Your task to perform on an android device: uninstall "Speedtest by Ookla" Image 0: 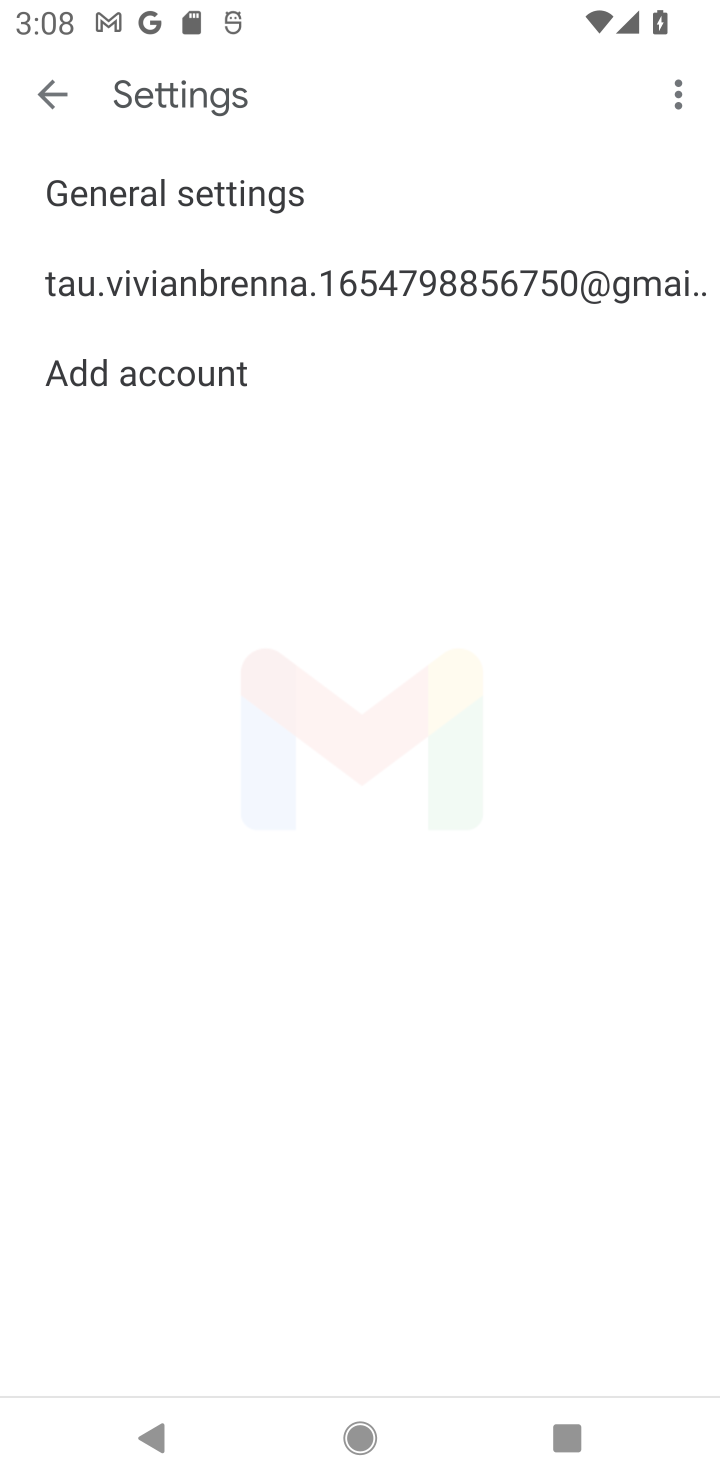
Step 0: press home button
Your task to perform on an android device: uninstall "Speedtest by Ookla" Image 1: 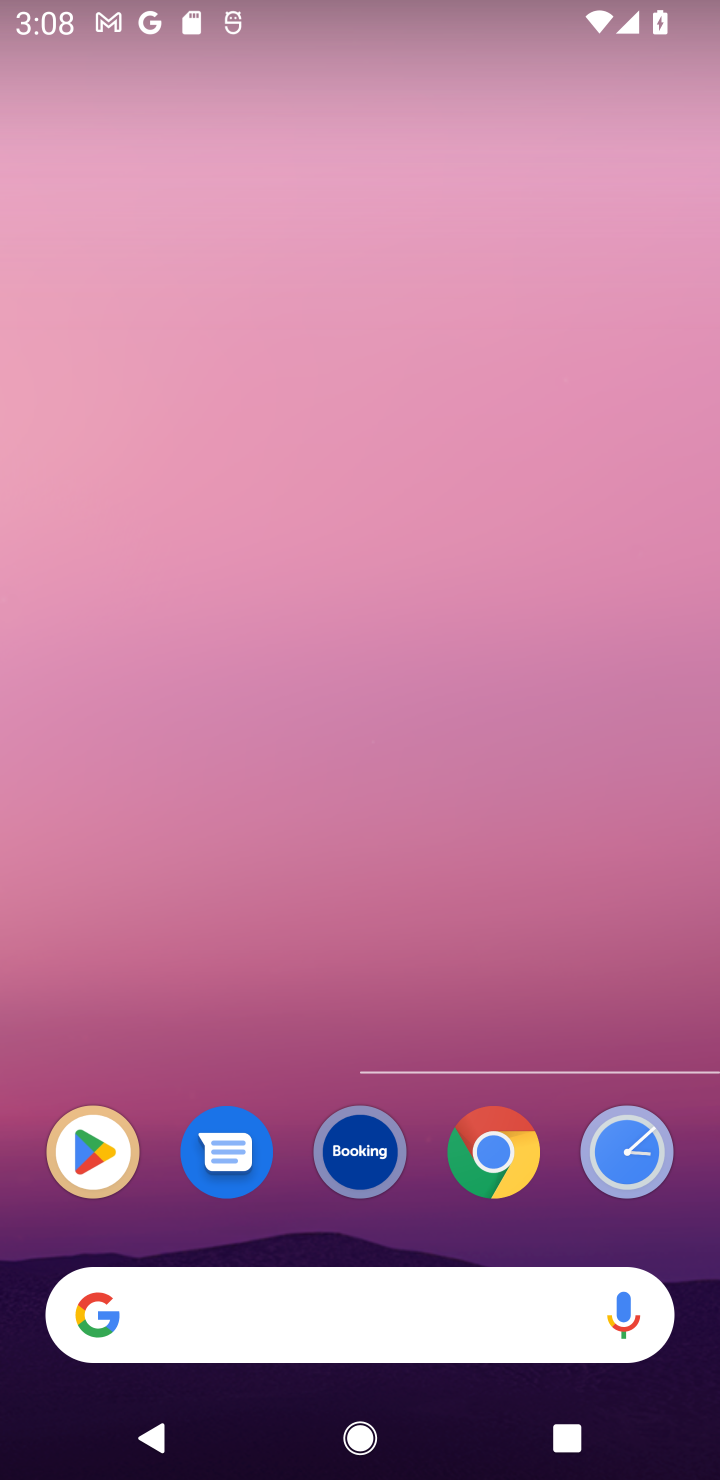
Step 1: click (141, 1127)
Your task to perform on an android device: uninstall "Speedtest by Ookla" Image 2: 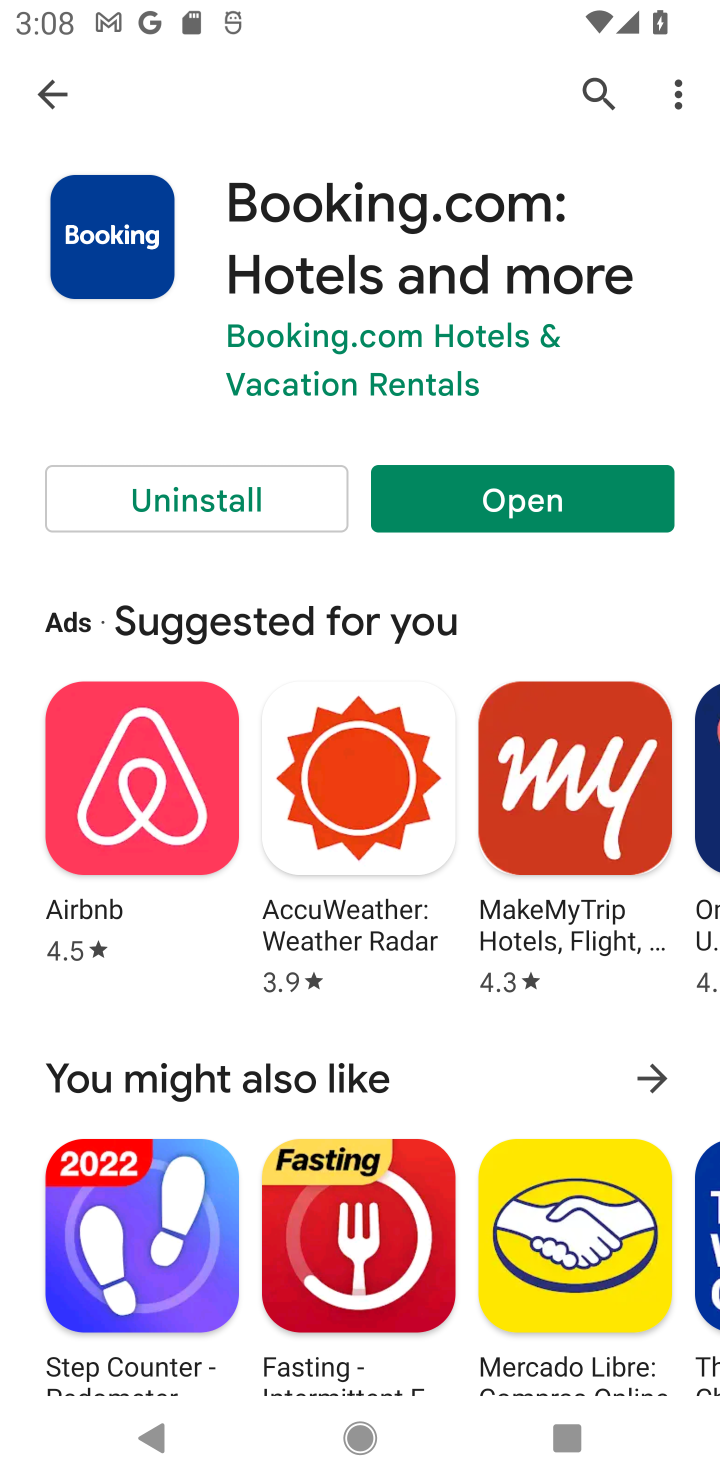
Step 2: click (64, 97)
Your task to perform on an android device: uninstall "Speedtest by Ookla" Image 3: 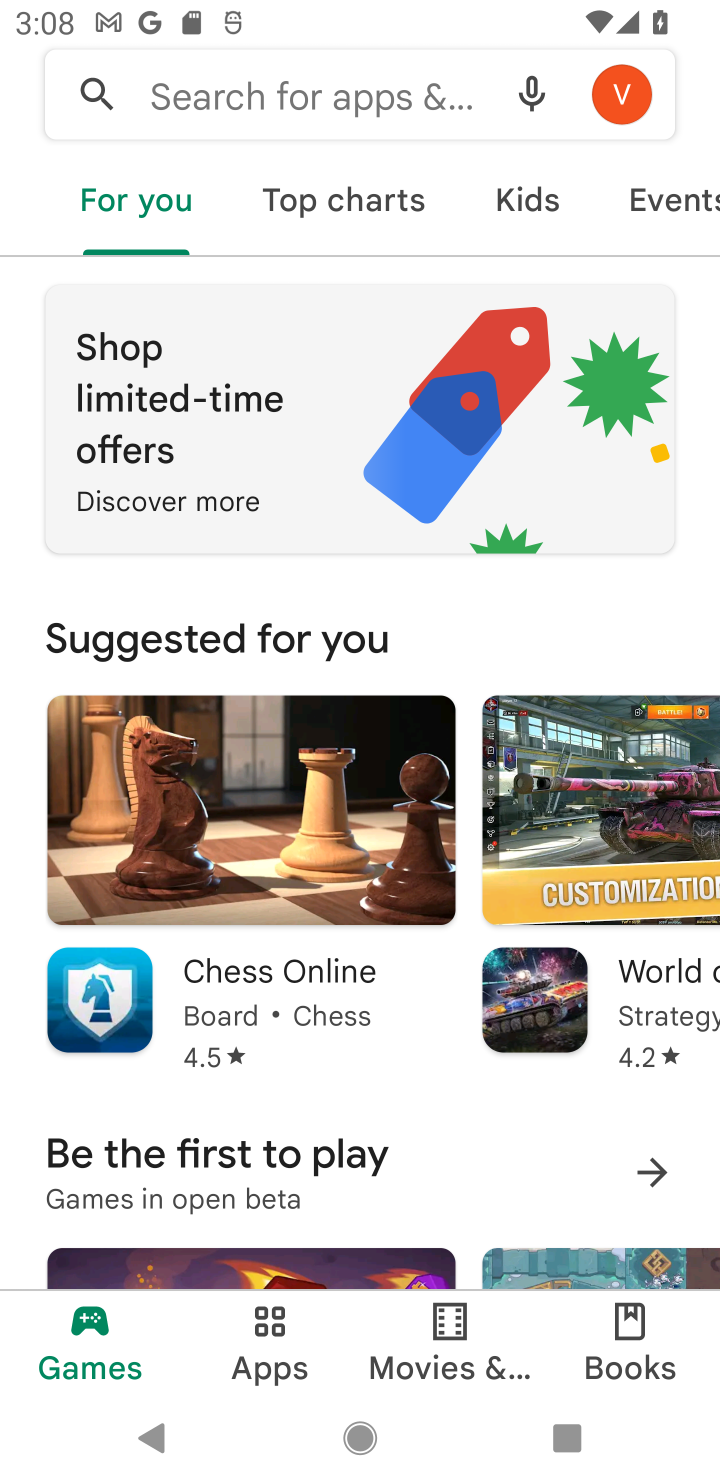
Step 3: click (167, 91)
Your task to perform on an android device: uninstall "Speedtest by Ookla" Image 4: 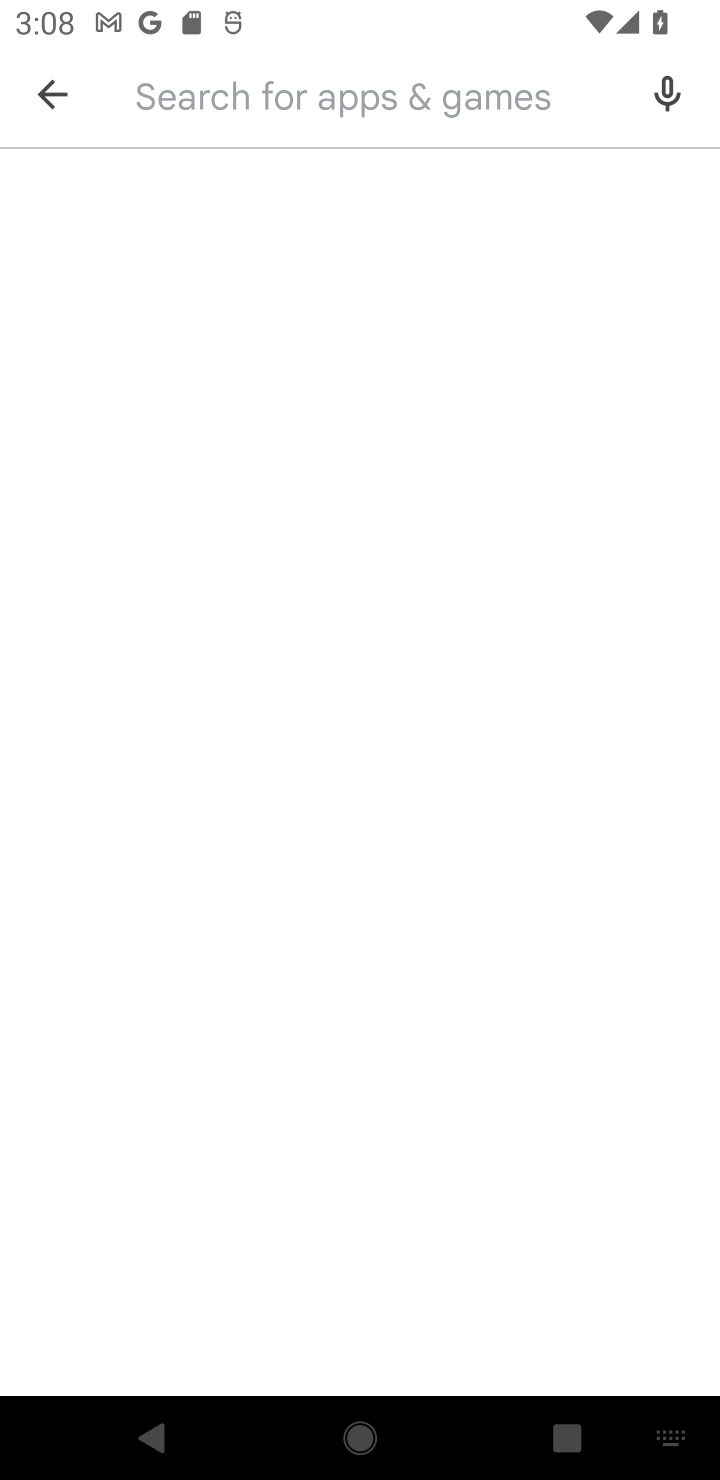
Step 4: type "Speedtest by Ookl"
Your task to perform on an android device: uninstall "Speedtest by Ookla" Image 5: 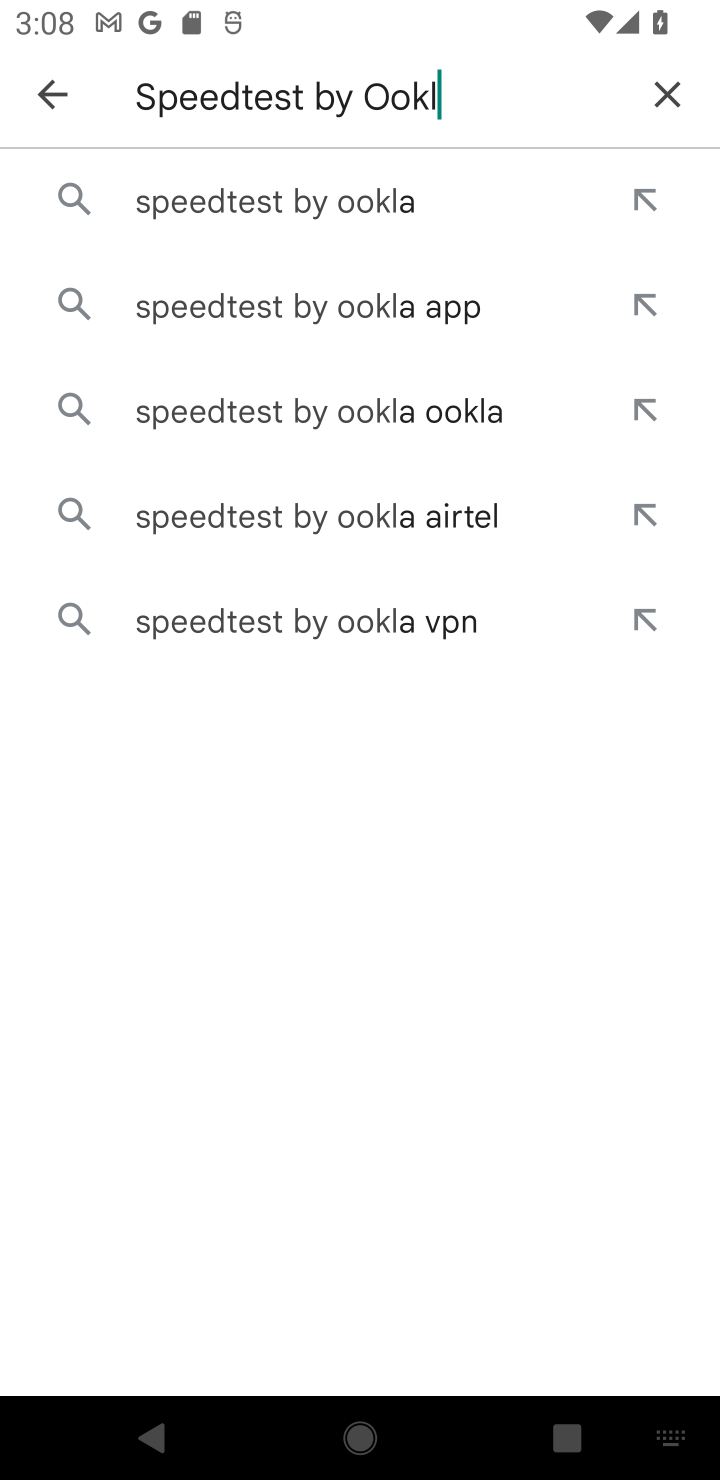
Step 5: click (353, 184)
Your task to perform on an android device: uninstall "Speedtest by Ookla" Image 6: 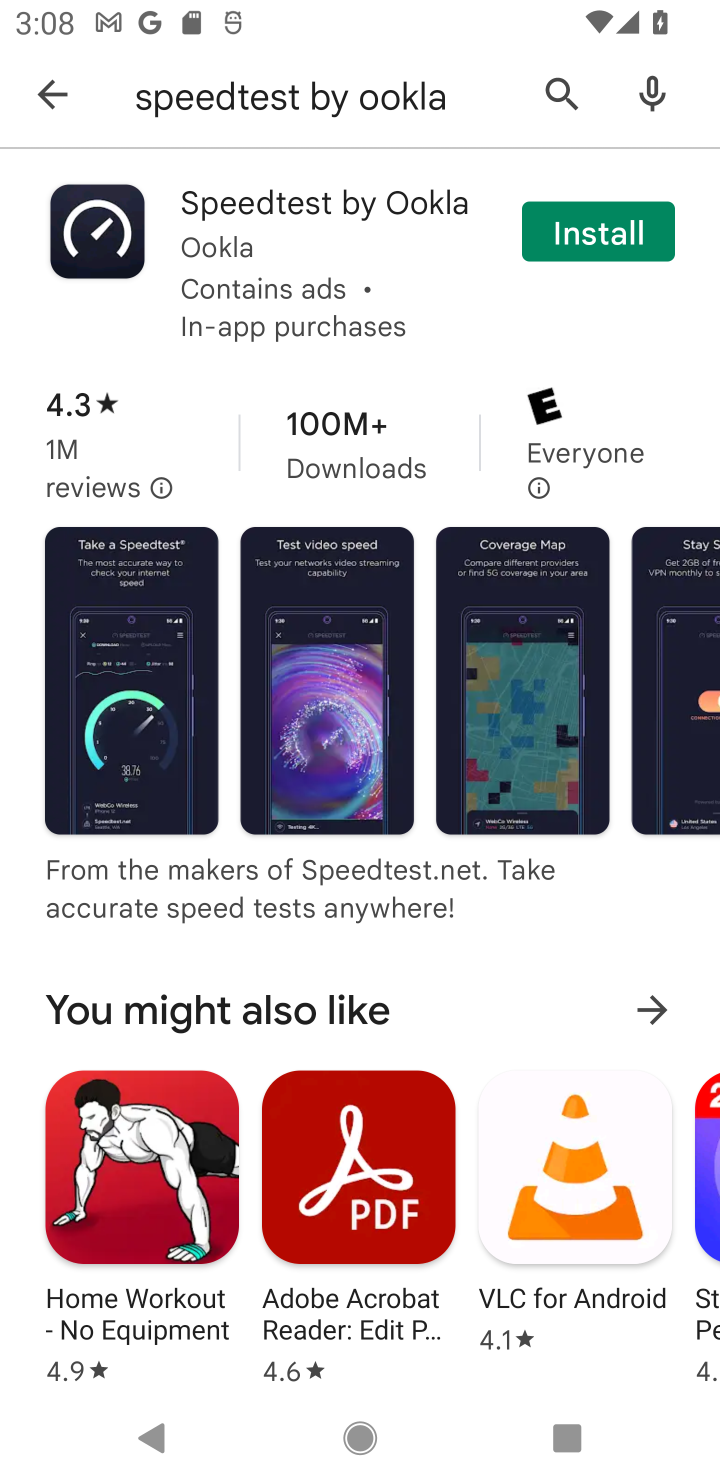
Step 6: task complete